Your task to perform on an android device: Open privacy settings Image 0: 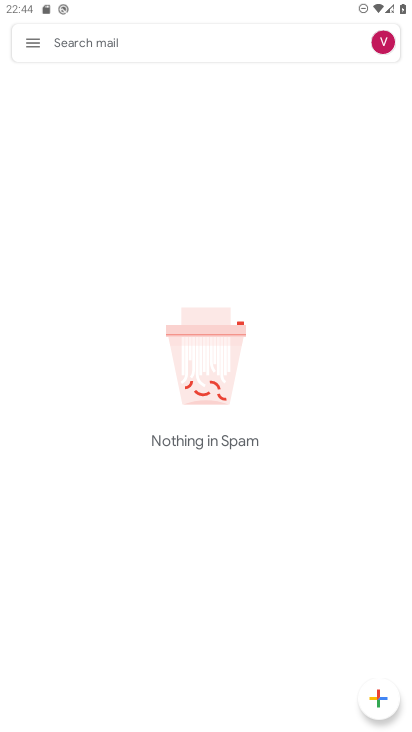
Step 0: press home button
Your task to perform on an android device: Open privacy settings Image 1: 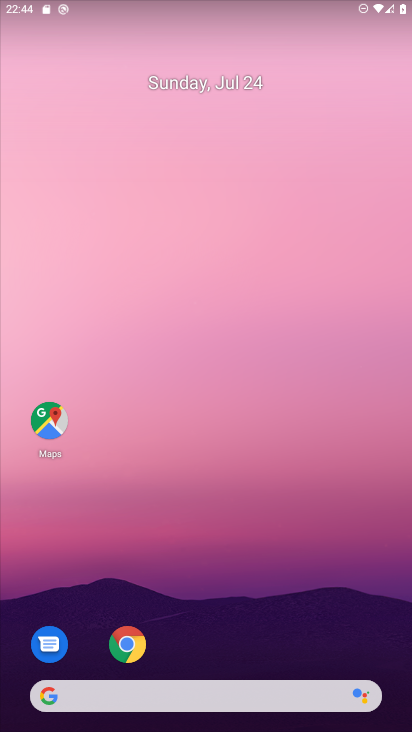
Step 1: drag from (331, 639) to (312, 20)
Your task to perform on an android device: Open privacy settings Image 2: 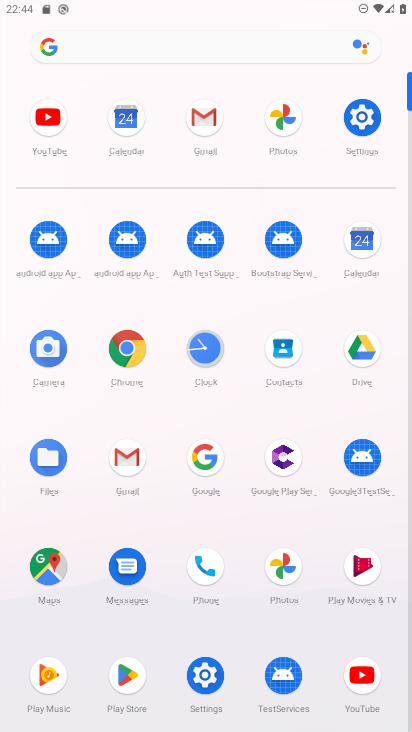
Step 2: click (204, 675)
Your task to perform on an android device: Open privacy settings Image 3: 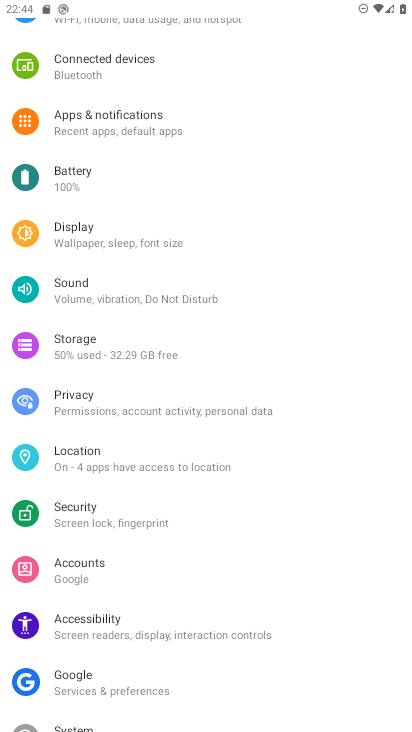
Step 3: click (59, 392)
Your task to perform on an android device: Open privacy settings Image 4: 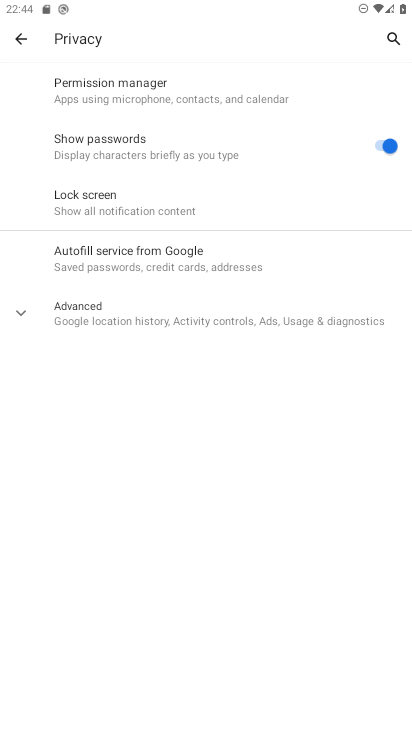
Step 4: click (22, 311)
Your task to perform on an android device: Open privacy settings Image 5: 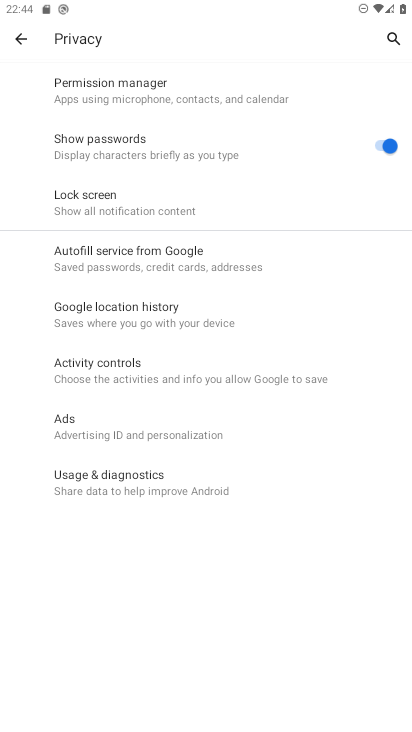
Step 5: task complete